Your task to perform on an android device: turn off javascript in the chrome app Image 0: 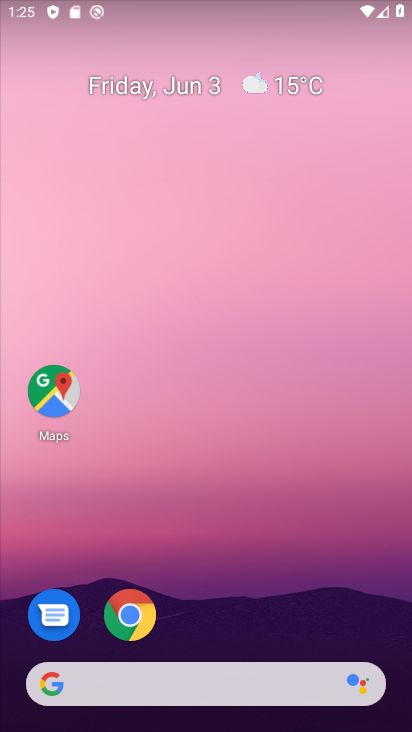
Step 0: drag from (145, 667) to (393, 147)
Your task to perform on an android device: turn off javascript in the chrome app Image 1: 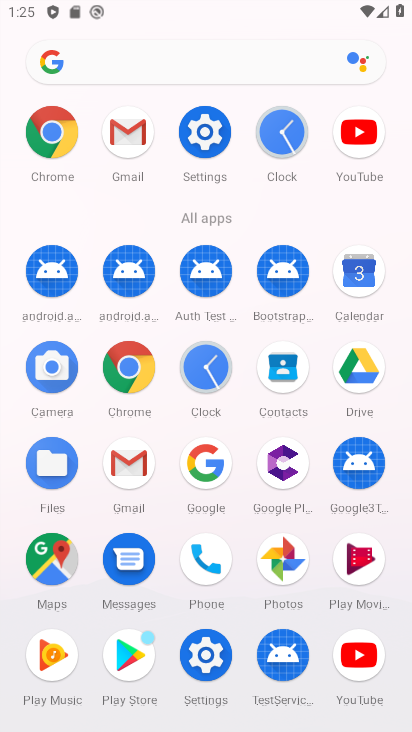
Step 1: click (131, 363)
Your task to perform on an android device: turn off javascript in the chrome app Image 2: 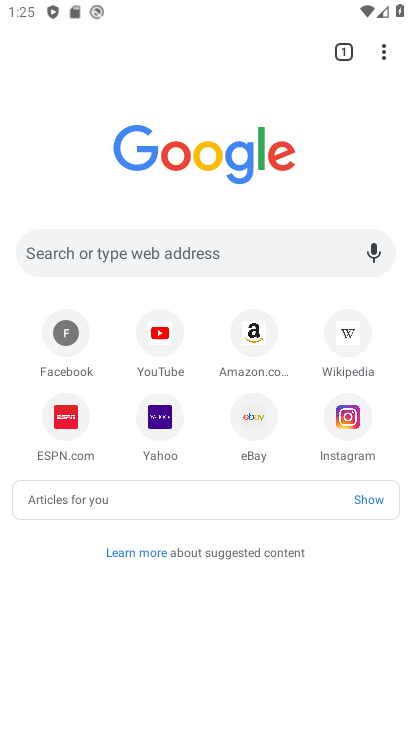
Step 2: click (388, 70)
Your task to perform on an android device: turn off javascript in the chrome app Image 3: 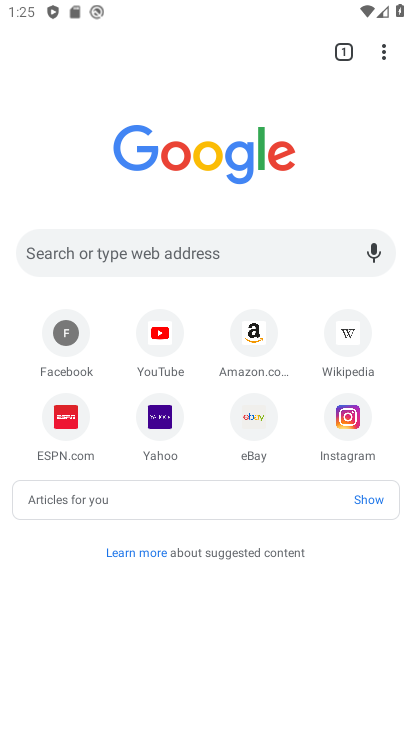
Step 3: click (389, 50)
Your task to perform on an android device: turn off javascript in the chrome app Image 4: 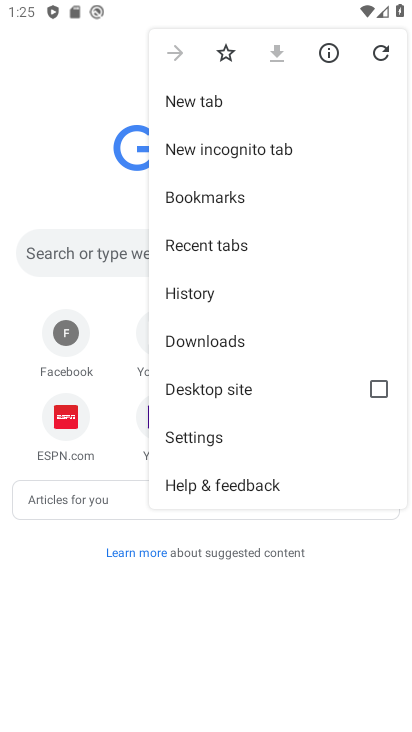
Step 4: click (186, 429)
Your task to perform on an android device: turn off javascript in the chrome app Image 5: 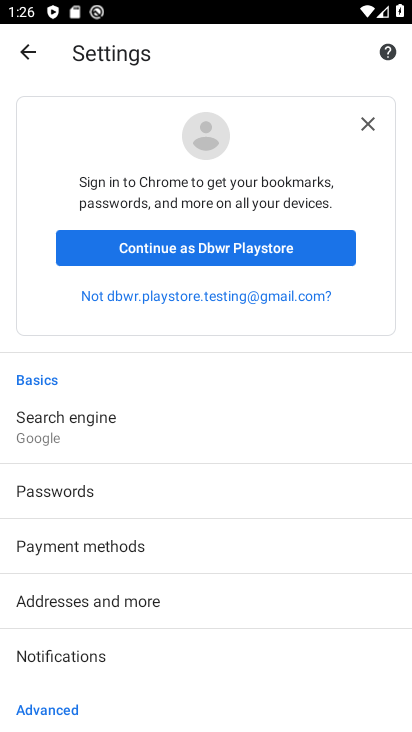
Step 5: drag from (210, 654) to (278, 182)
Your task to perform on an android device: turn off javascript in the chrome app Image 6: 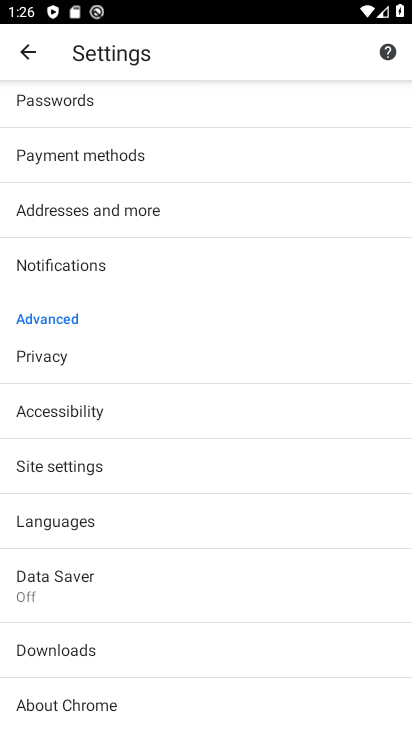
Step 6: click (147, 466)
Your task to perform on an android device: turn off javascript in the chrome app Image 7: 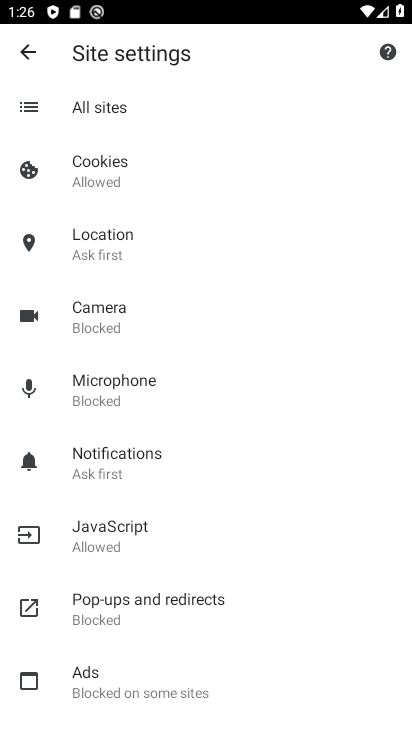
Step 7: click (141, 544)
Your task to perform on an android device: turn off javascript in the chrome app Image 8: 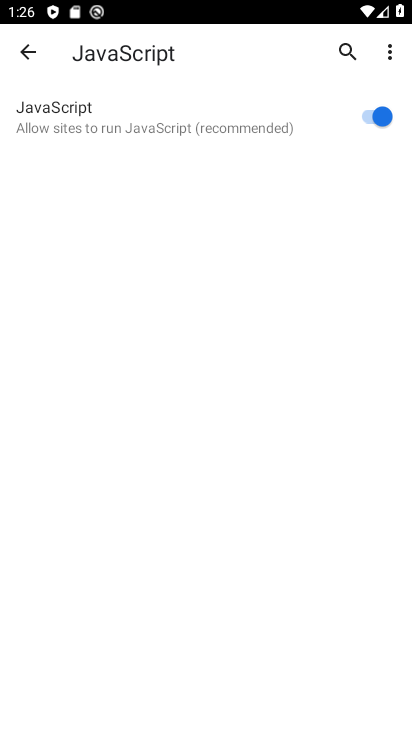
Step 8: drag from (269, 517) to (299, 213)
Your task to perform on an android device: turn off javascript in the chrome app Image 9: 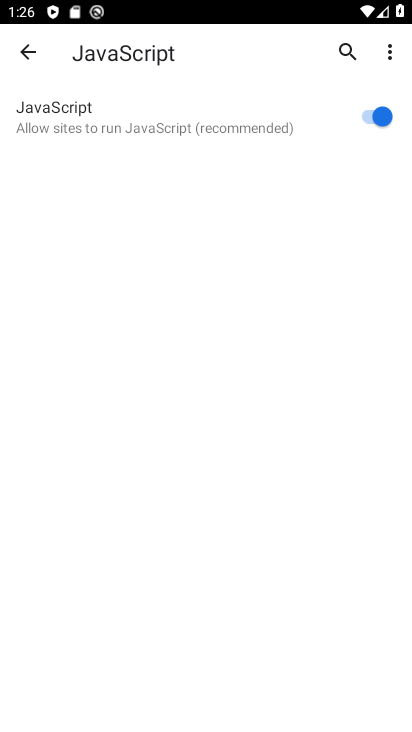
Step 9: drag from (230, 567) to (262, 73)
Your task to perform on an android device: turn off javascript in the chrome app Image 10: 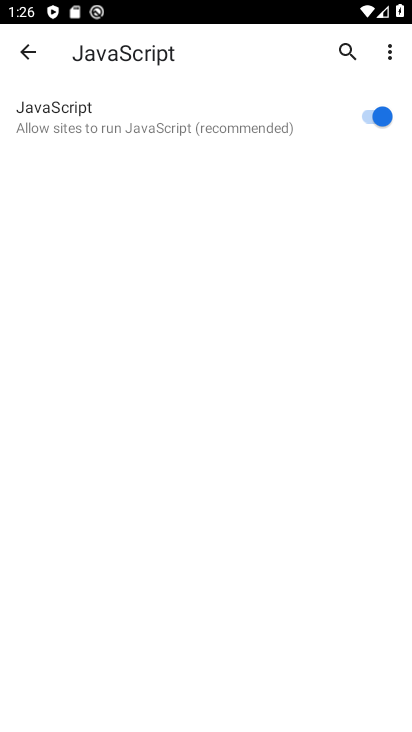
Step 10: click (339, 118)
Your task to perform on an android device: turn off javascript in the chrome app Image 11: 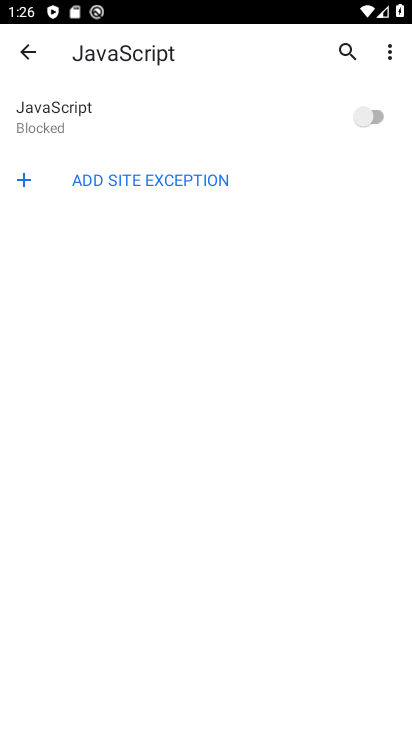
Step 11: task complete